Your task to perform on an android device: set default search engine in the chrome app Image 0: 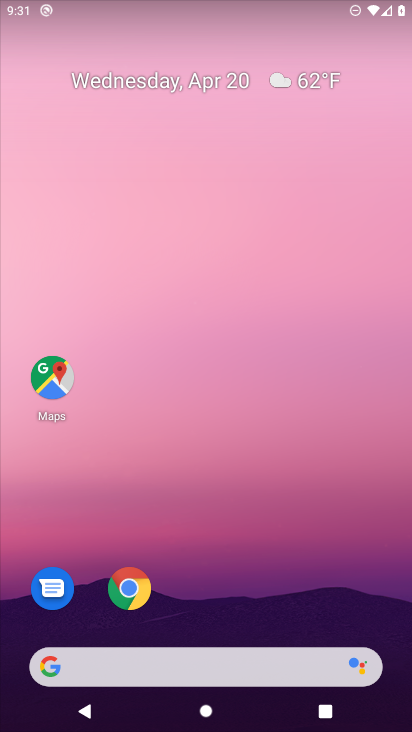
Step 0: click (128, 588)
Your task to perform on an android device: set default search engine in the chrome app Image 1: 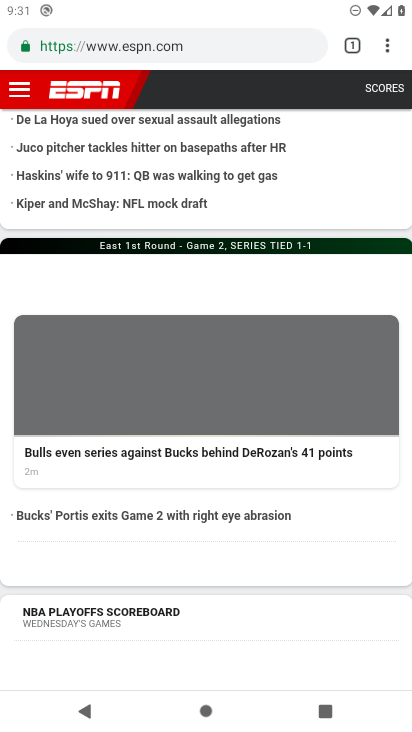
Step 1: click (354, 45)
Your task to perform on an android device: set default search engine in the chrome app Image 2: 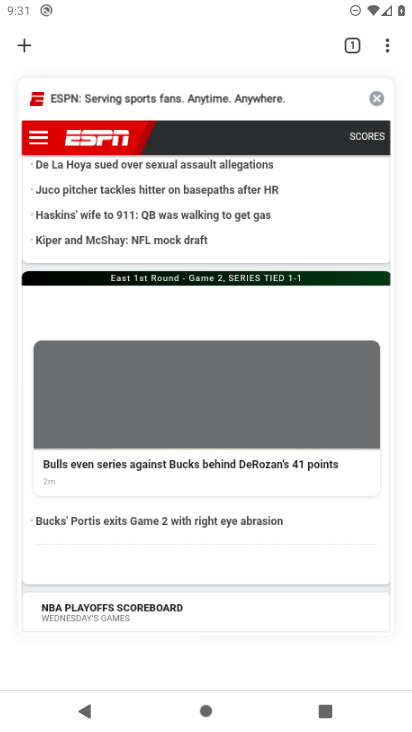
Step 2: click (376, 98)
Your task to perform on an android device: set default search engine in the chrome app Image 3: 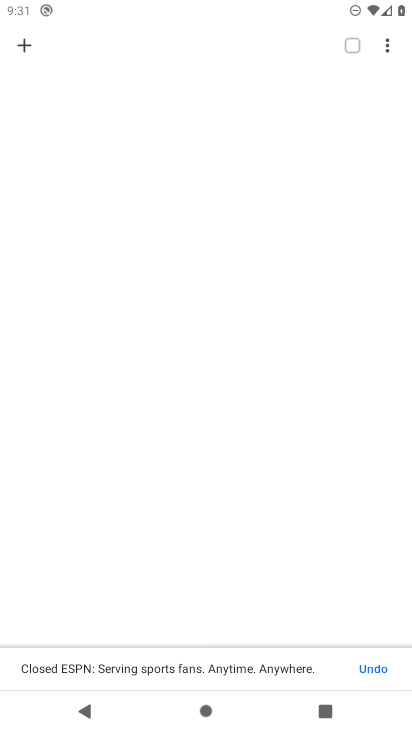
Step 3: click (26, 46)
Your task to perform on an android device: set default search engine in the chrome app Image 4: 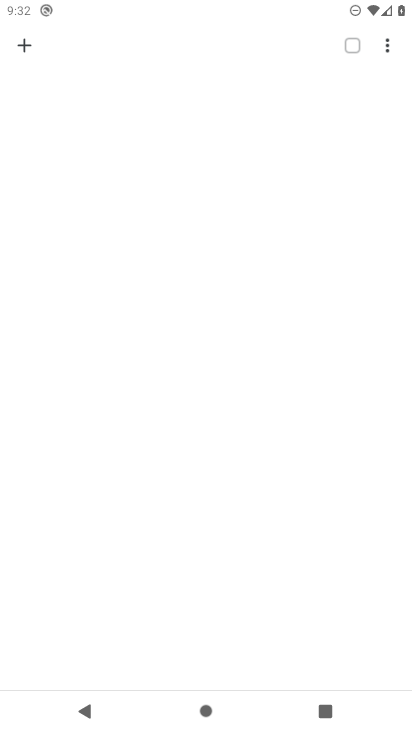
Step 4: click (29, 42)
Your task to perform on an android device: set default search engine in the chrome app Image 5: 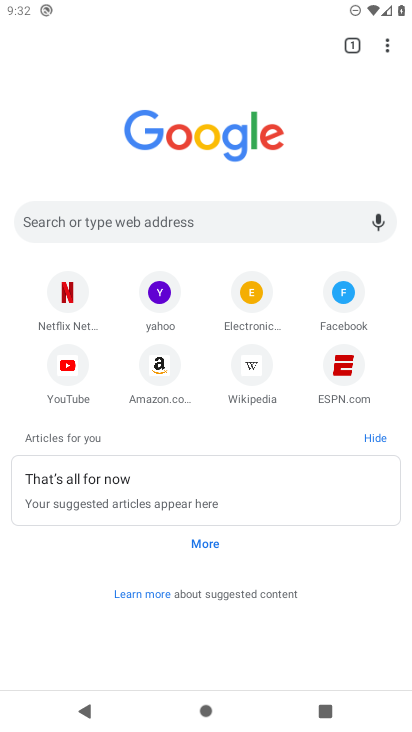
Step 5: click (386, 43)
Your task to perform on an android device: set default search engine in the chrome app Image 6: 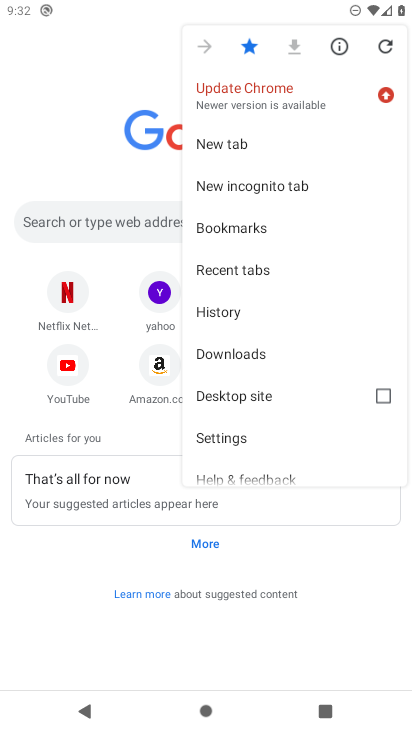
Step 6: click (258, 436)
Your task to perform on an android device: set default search engine in the chrome app Image 7: 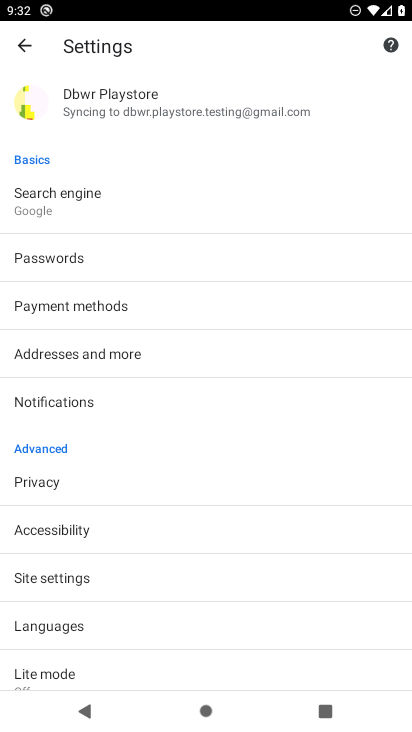
Step 7: click (68, 207)
Your task to perform on an android device: set default search engine in the chrome app Image 8: 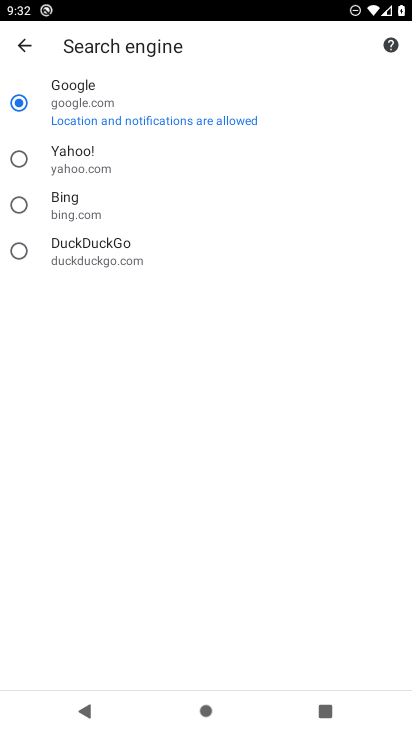
Step 8: click (18, 158)
Your task to perform on an android device: set default search engine in the chrome app Image 9: 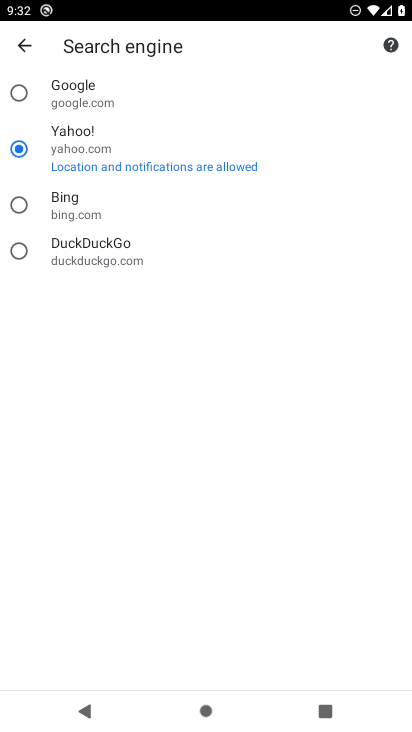
Step 9: task complete